Your task to perform on an android device: See recent photos Image 0: 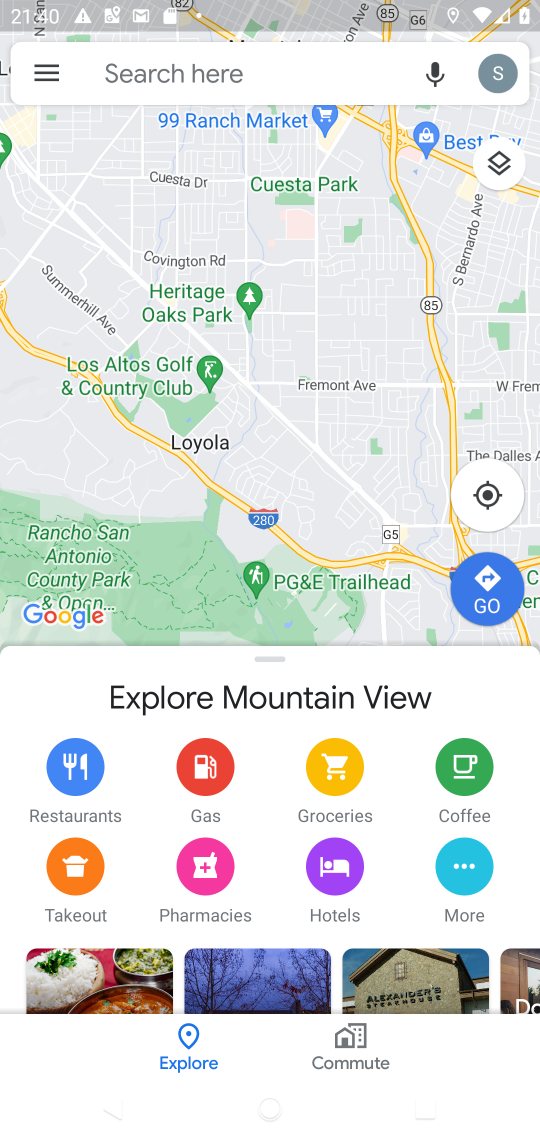
Step 0: press home button
Your task to perform on an android device: See recent photos Image 1: 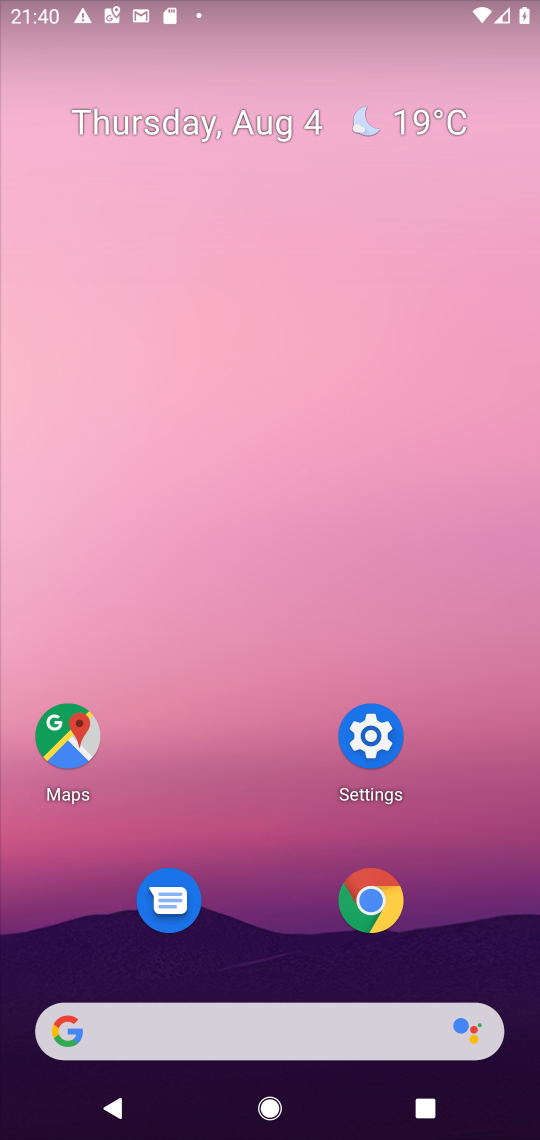
Step 1: drag from (346, 733) to (427, 172)
Your task to perform on an android device: See recent photos Image 2: 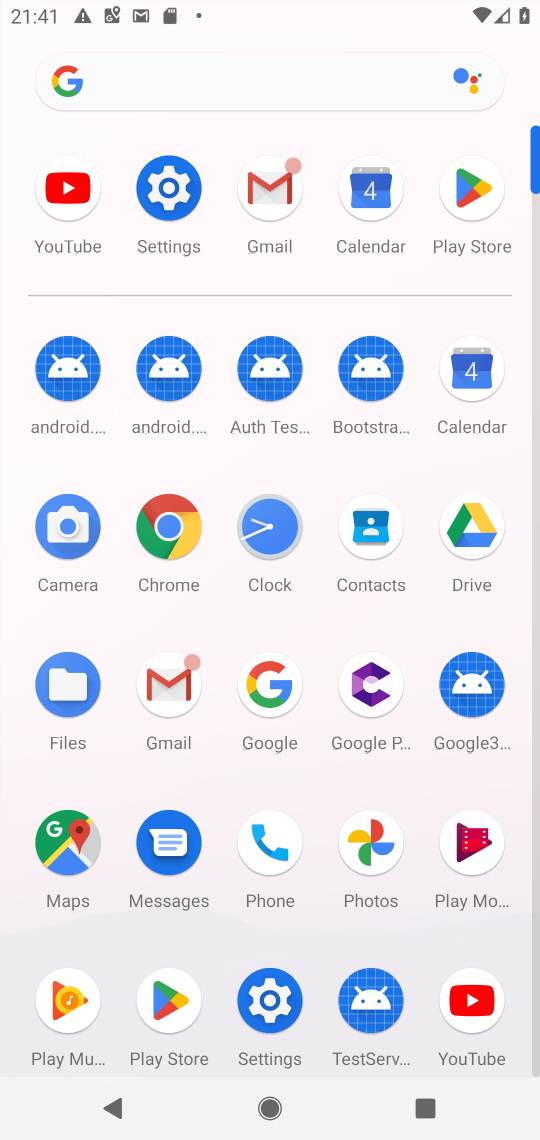
Step 2: click (356, 832)
Your task to perform on an android device: See recent photos Image 3: 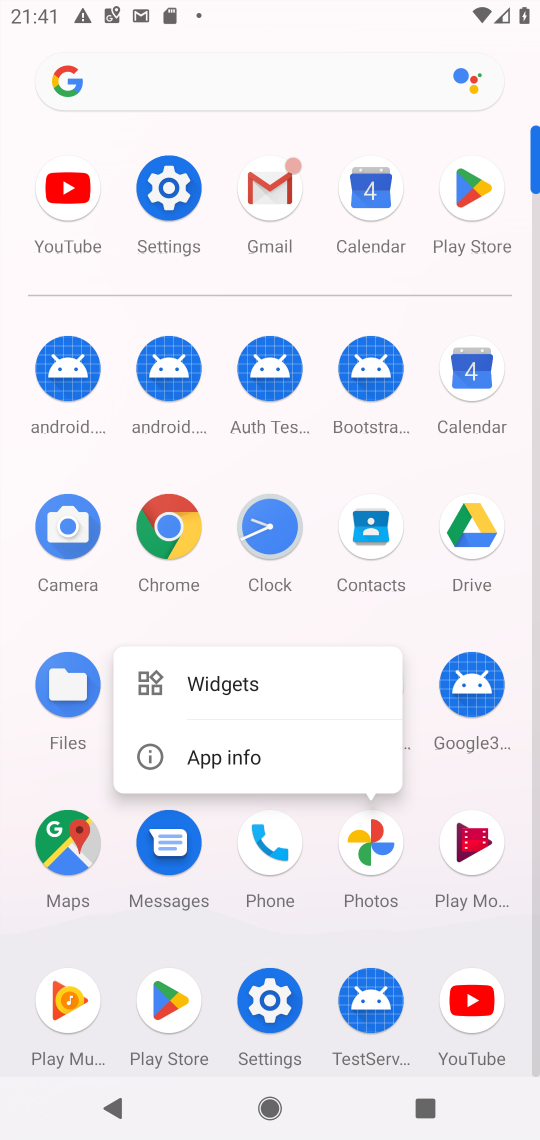
Step 3: click (374, 844)
Your task to perform on an android device: See recent photos Image 4: 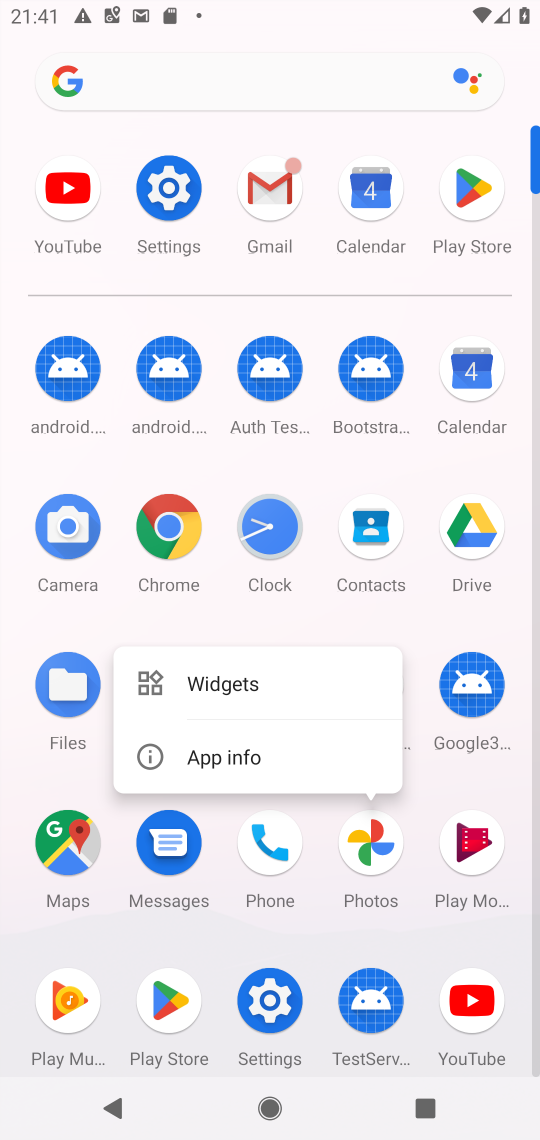
Step 4: click (374, 844)
Your task to perform on an android device: See recent photos Image 5: 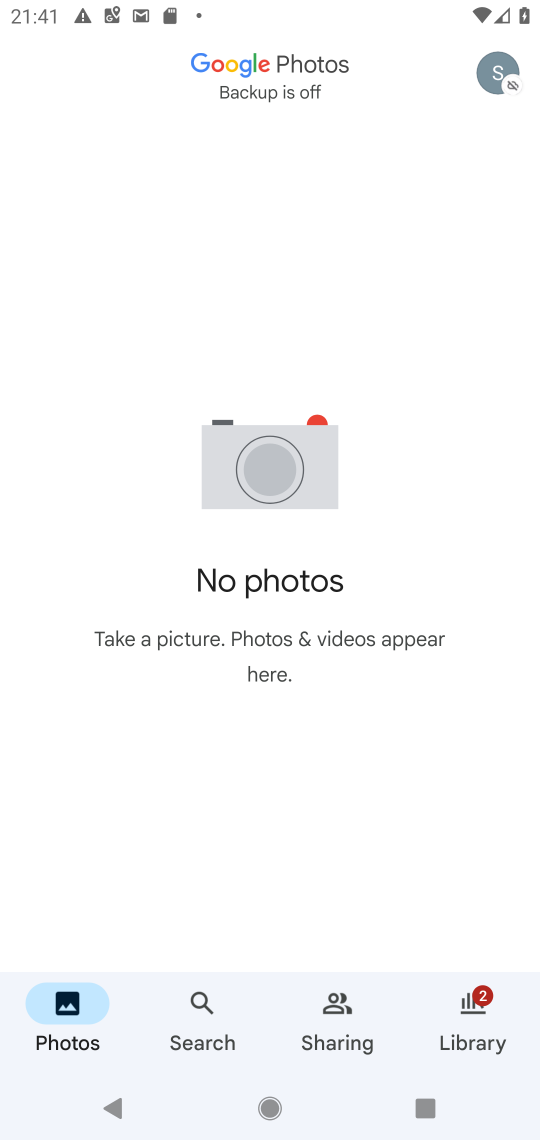
Step 5: click (203, 1009)
Your task to perform on an android device: See recent photos Image 6: 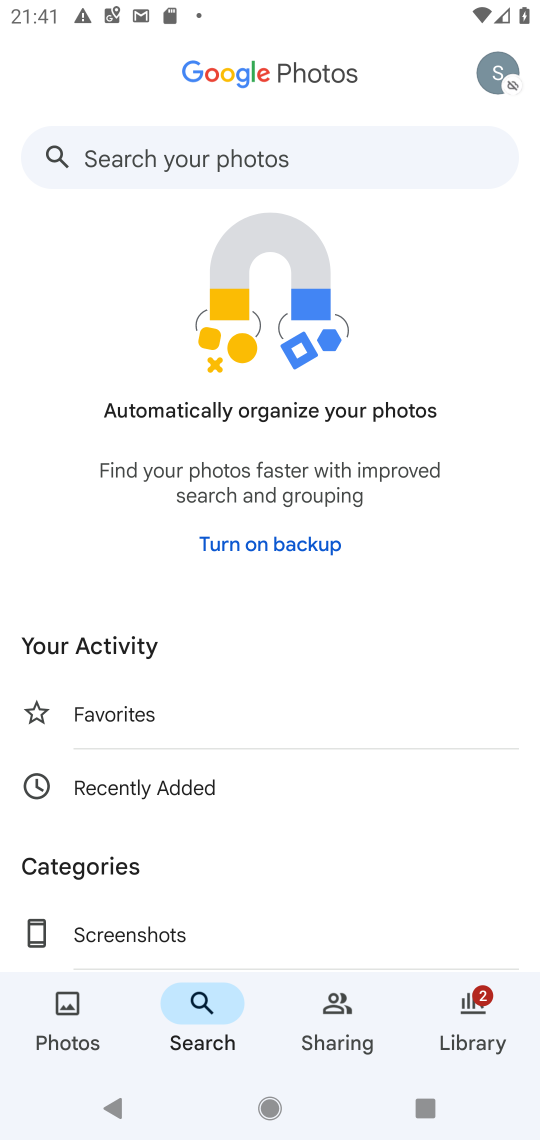
Step 6: drag from (208, 850) to (294, 501)
Your task to perform on an android device: See recent photos Image 7: 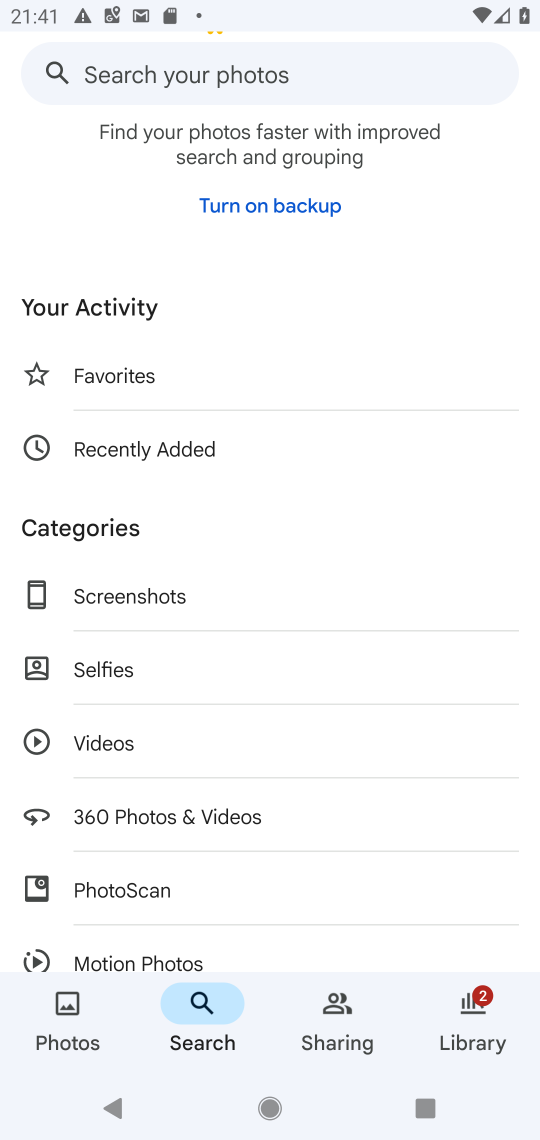
Step 7: click (142, 447)
Your task to perform on an android device: See recent photos Image 8: 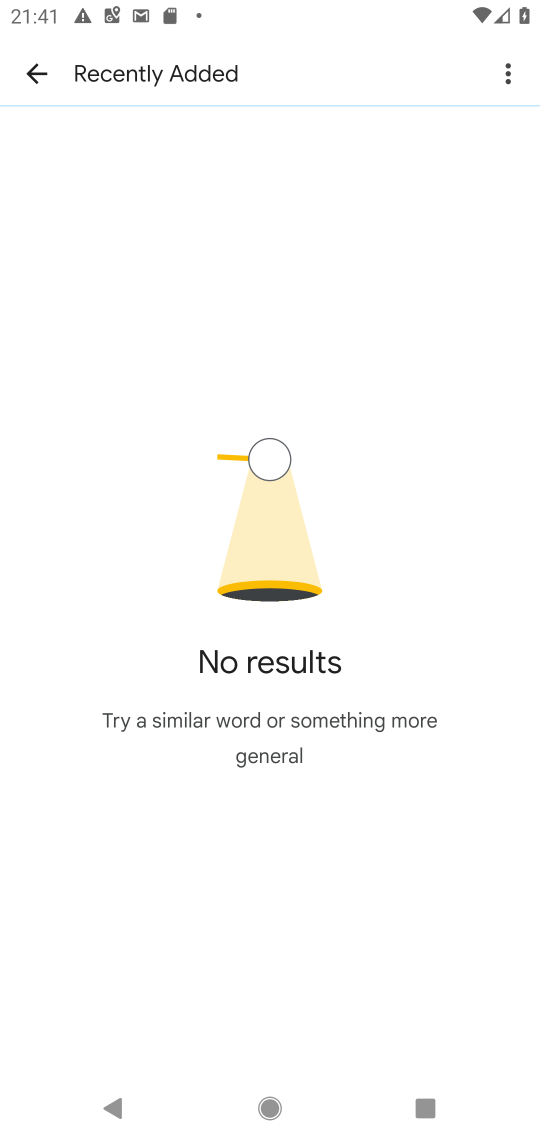
Step 8: task complete